Your task to perform on an android device: What's the weather going to be this weekend? Image 0: 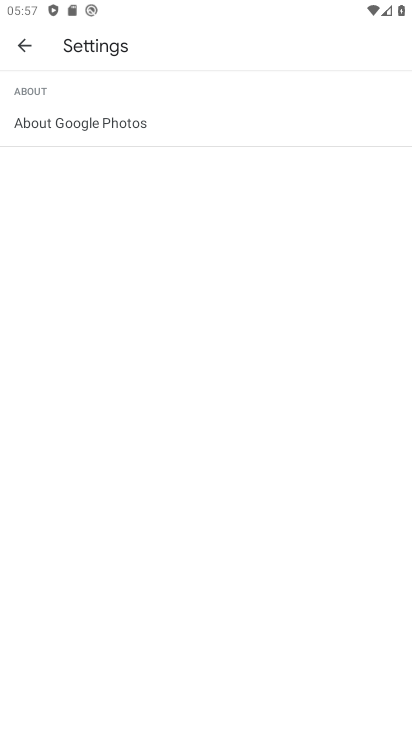
Step 0: press home button
Your task to perform on an android device: What's the weather going to be this weekend? Image 1: 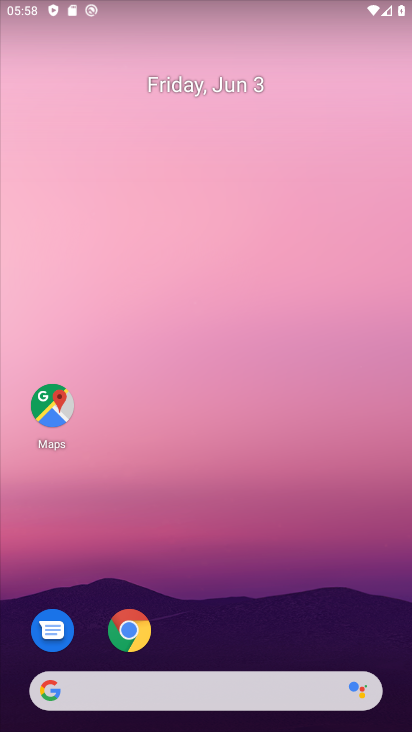
Step 1: click (277, 699)
Your task to perform on an android device: What's the weather going to be this weekend? Image 2: 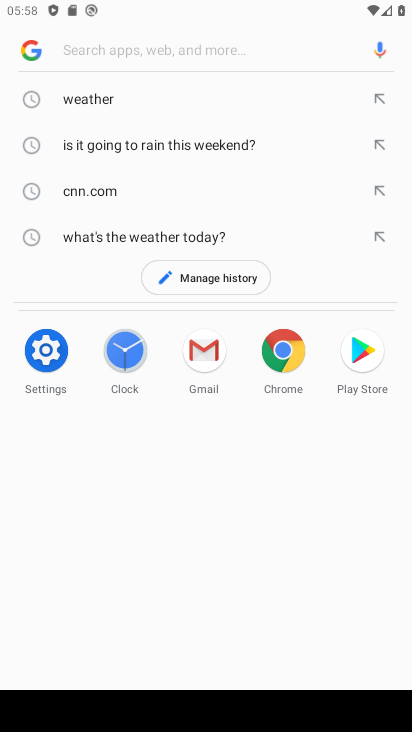
Step 2: click (83, 106)
Your task to perform on an android device: What's the weather going to be this weekend? Image 3: 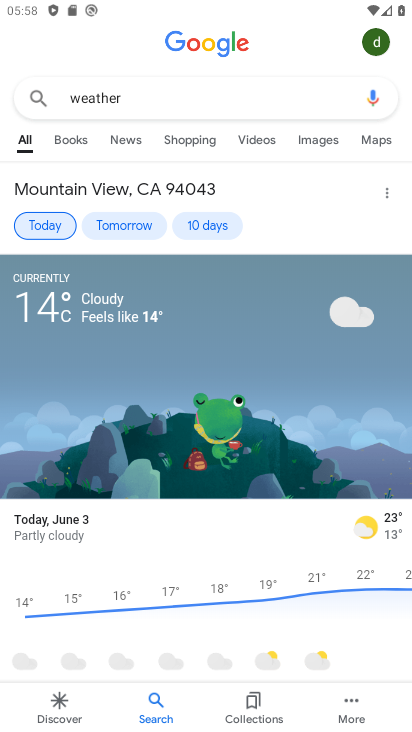
Step 3: click (195, 228)
Your task to perform on an android device: What's the weather going to be this weekend? Image 4: 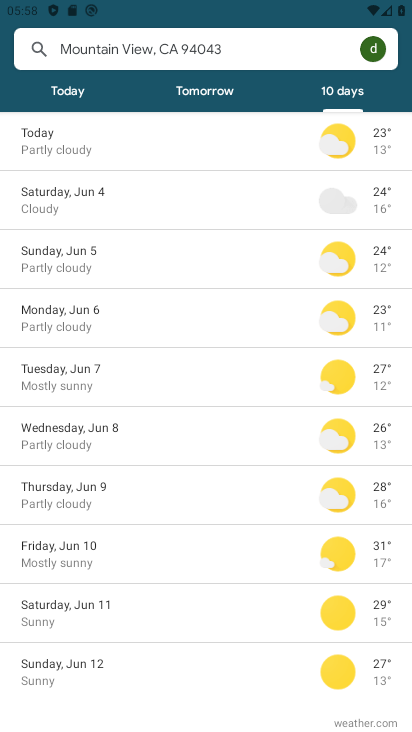
Step 4: task complete